Your task to perform on an android device: toggle data saver in the chrome app Image 0: 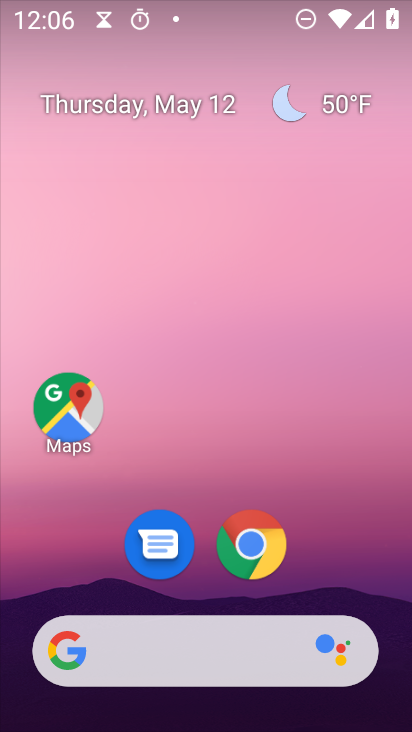
Step 0: click (258, 546)
Your task to perform on an android device: toggle data saver in the chrome app Image 1: 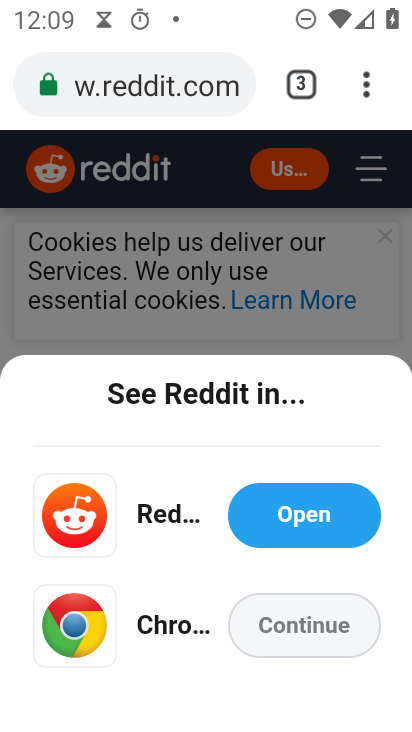
Step 1: click (363, 95)
Your task to perform on an android device: toggle data saver in the chrome app Image 2: 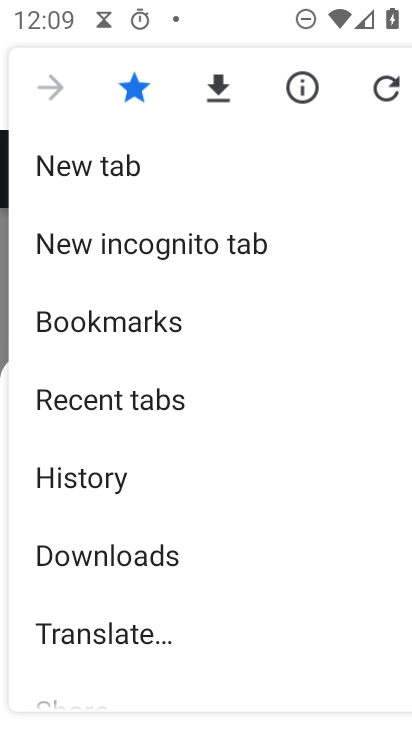
Step 2: drag from (143, 575) to (130, 131)
Your task to perform on an android device: toggle data saver in the chrome app Image 3: 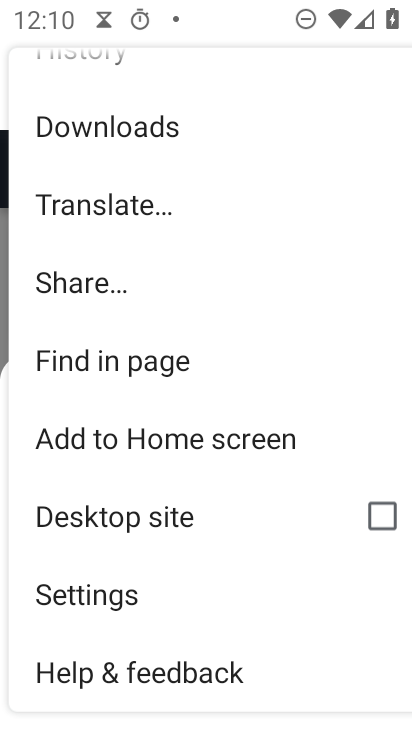
Step 3: drag from (144, 603) to (155, 182)
Your task to perform on an android device: toggle data saver in the chrome app Image 4: 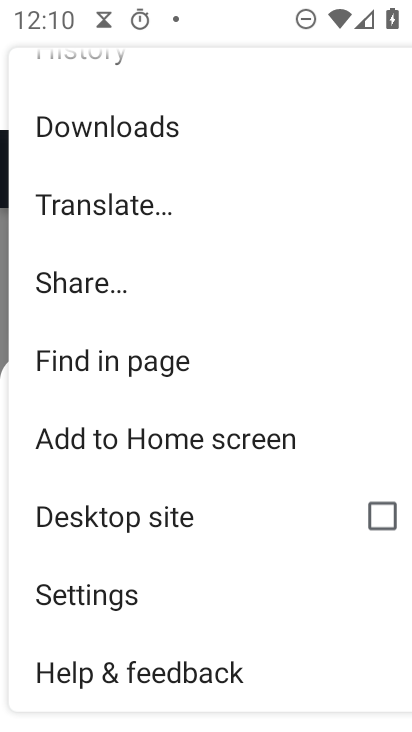
Step 4: click (226, 570)
Your task to perform on an android device: toggle data saver in the chrome app Image 5: 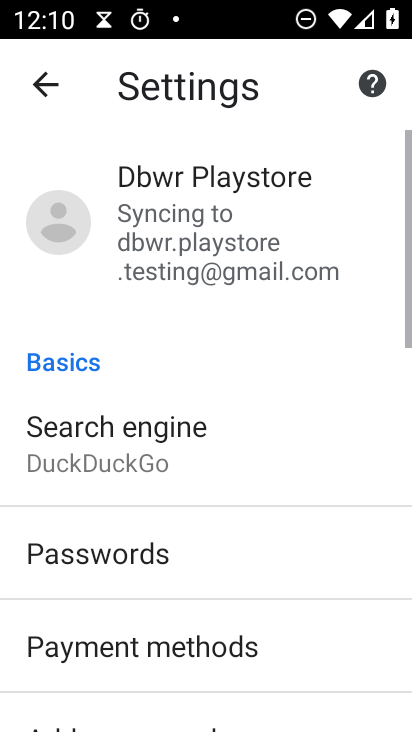
Step 5: drag from (135, 611) to (183, 140)
Your task to perform on an android device: toggle data saver in the chrome app Image 6: 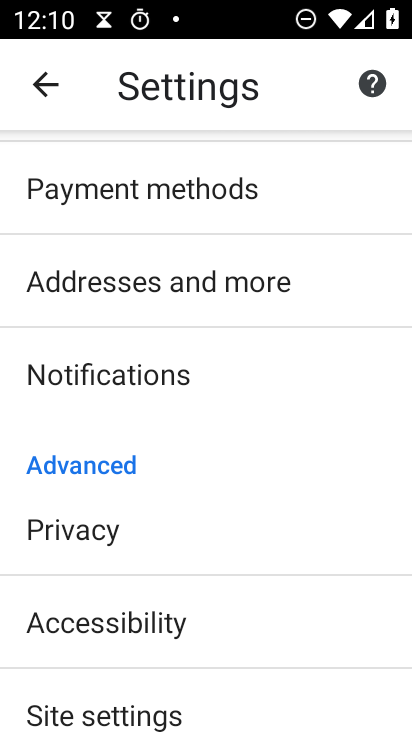
Step 6: drag from (123, 657) to (209, 135)
Your task to perform on an android device: toggle data saver in the chrome app Image 7: 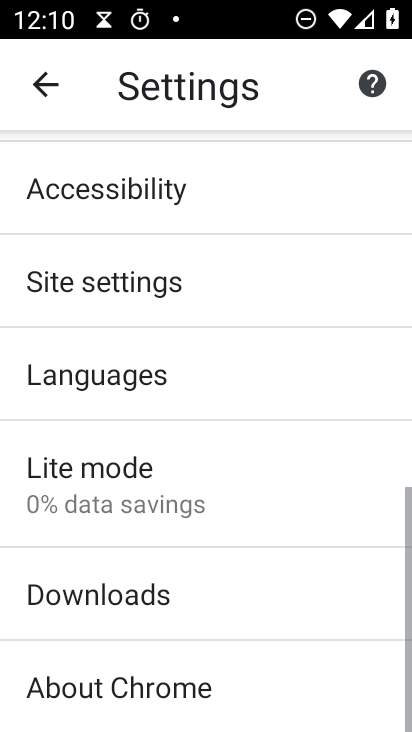
Step 7: click (163, 482)
Your task to perform on an android device: toggle data saver in the chrome app Image 8: 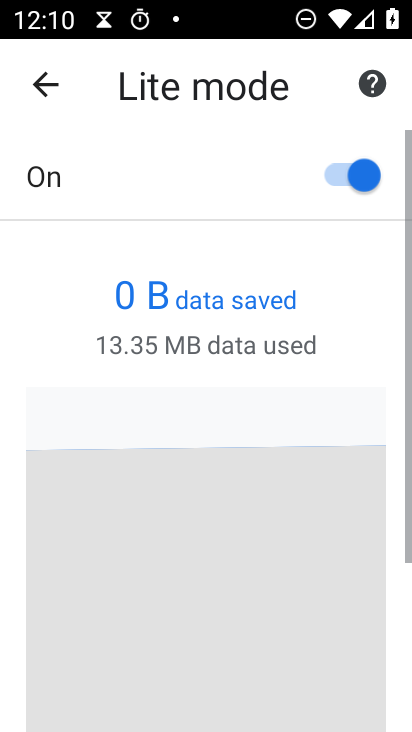
Step 8: click (360, 190)
Your task to perform on an android device: toggle data saver in the chrome app Image 9: 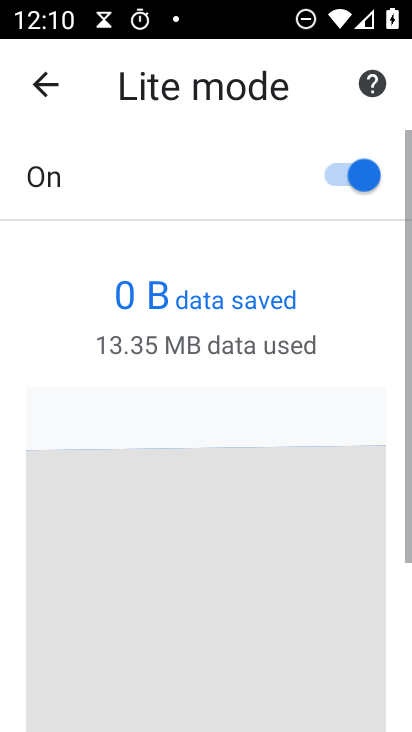
Step 9: click (360, 190)
Your task to perform on an android device: toggle data saver in the chrome app Image 10: 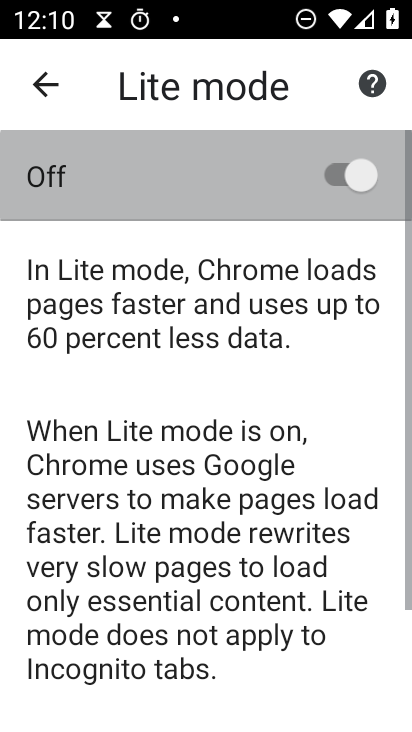
Step 10: click (360, 190)
Your task to perform on an android device: toggle data saver in the chrome app Image 11: 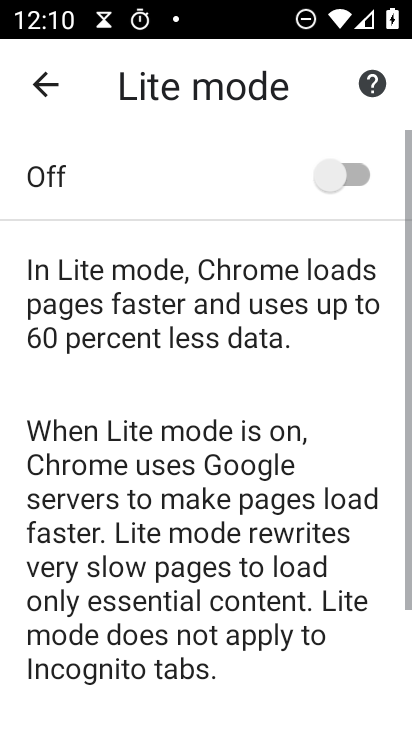
Step 11: task complete